Your task to perform on an android device: turn off location history Image 0: 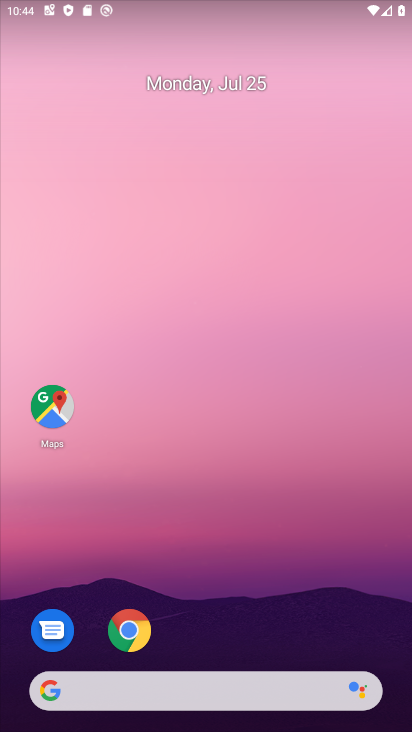
Step 0: drag from (365, 613) to (367, 113)
Your task to perform on an android device: turn off location history Image 1: 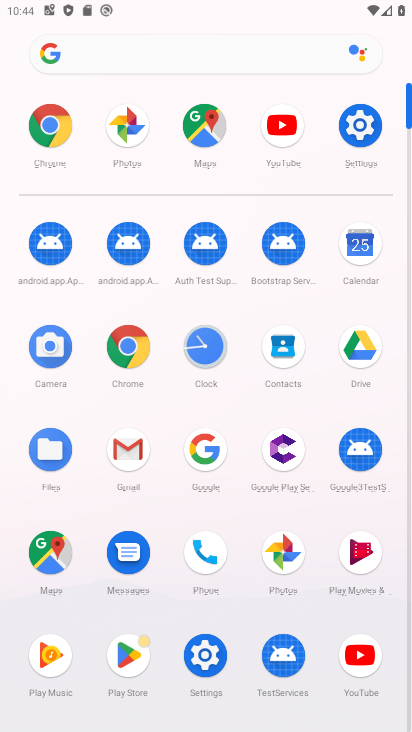
Step 1: click (361, 132)
Your task to perform on an android device: turn off location history Image 2: 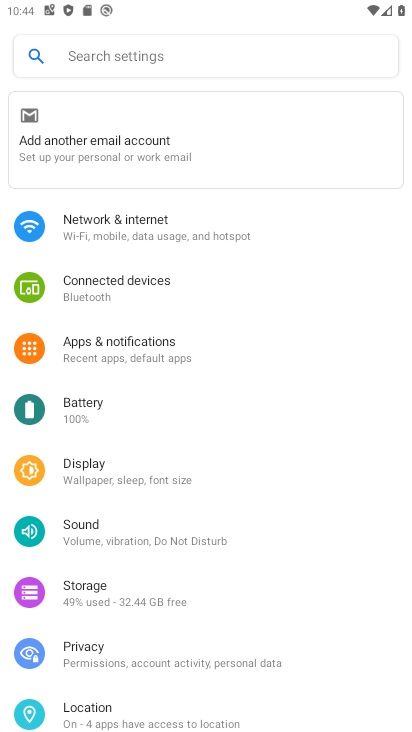
Step 2: drag from (340, 478) to (339, 395)
Your task to perform on an android device: turn off location history Image 3: 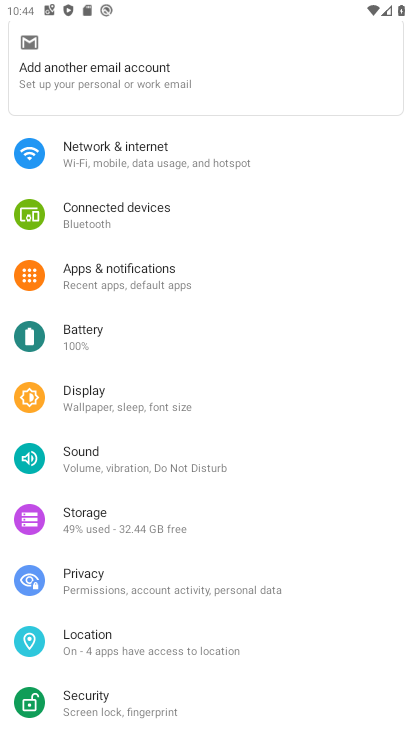
Step 3: drag from (339, 538) to (333, 393)
Your task to perform on an android device: turn off location history Image 4: 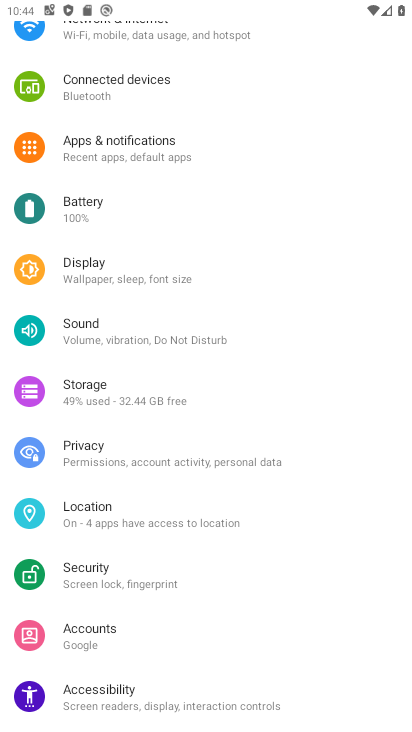
Step 4: drag from (317, 537) to (323, 350)
Your task to perform on an android device: turn off location history Image 5: 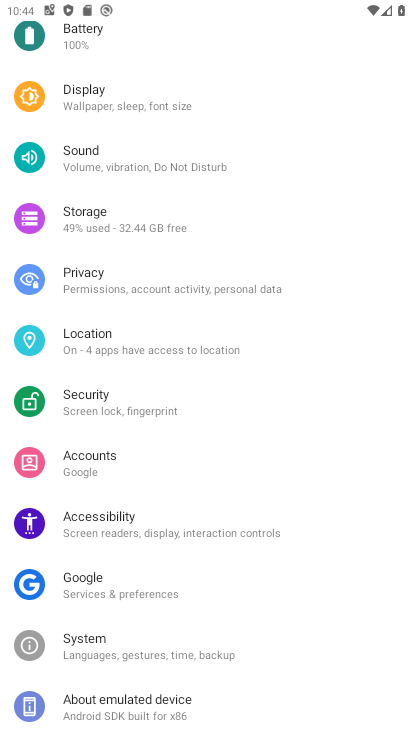
Step 5: drag from (305, 573) to (314, 422)
Your task to perform on an android device: turn off location history Image 6: 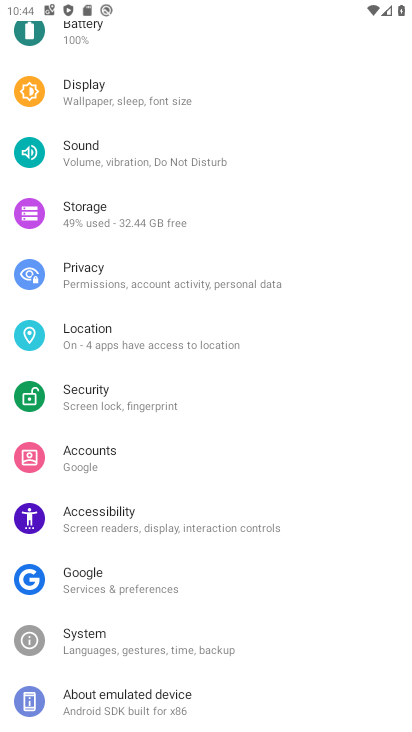
Step 6: drag from (315, 361) to (319, 455)
Your task to perform on an android device: turn off location history Image 7: 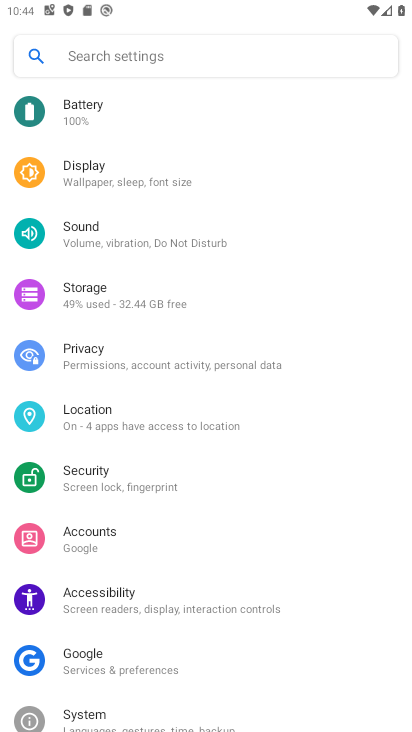
Step 7: drag from (326, 292) to (329, 405)
Your task to perform on an android device: turn off location history Image 8: 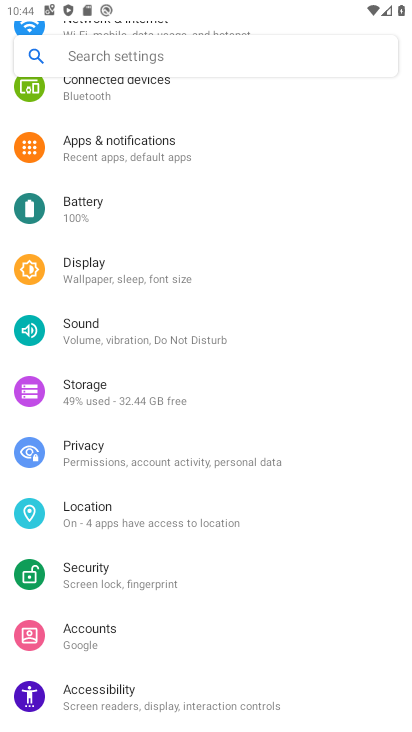
Step 8: click (220, 512)
Your task to perform on an android device: turn off location history Image 9: 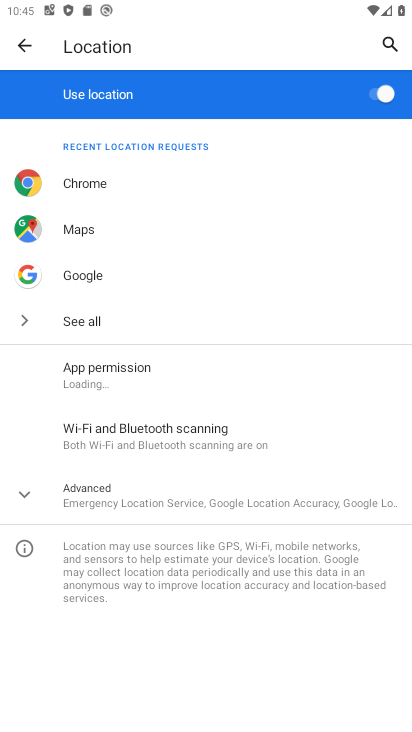
Step 9: click (182, 490)
Your task to perform on an android device: turn off location history Image 10: 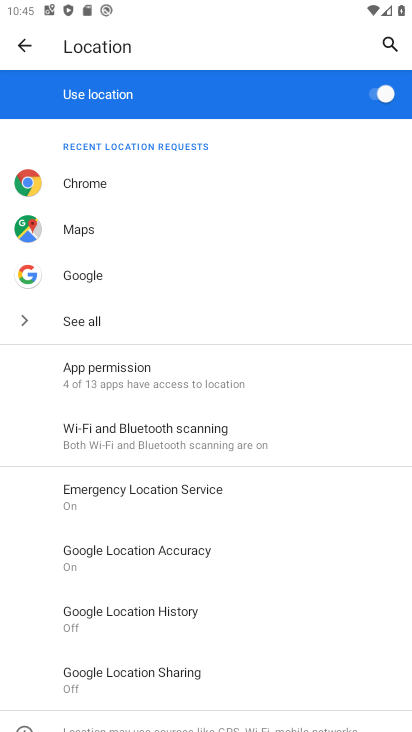
Step 10: task complete